Your task to perform on an android device: Open settings Image 0: 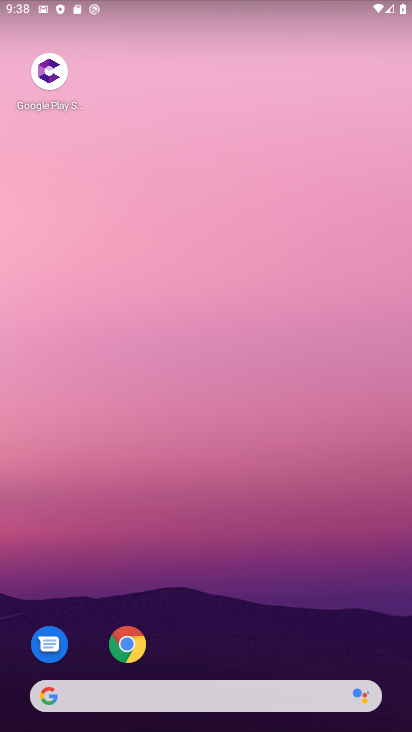
Step 0: drag from (305, 657) to (243, 107)
Your task to perform on an android device: Open settings Image 1: 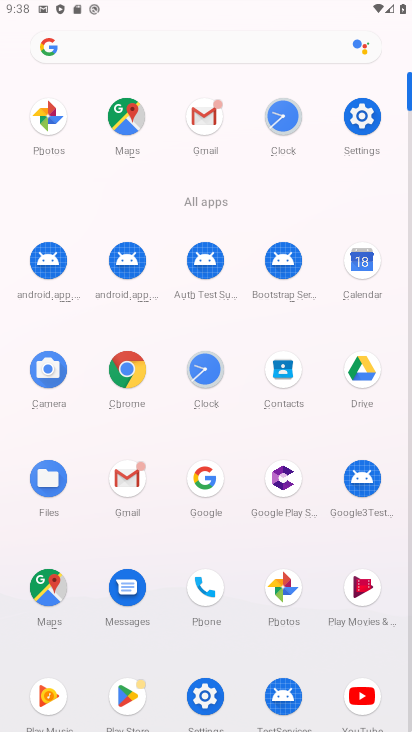
Step 1: click (349, 123)
Your task to perform on an android device: Open settings Image 2: 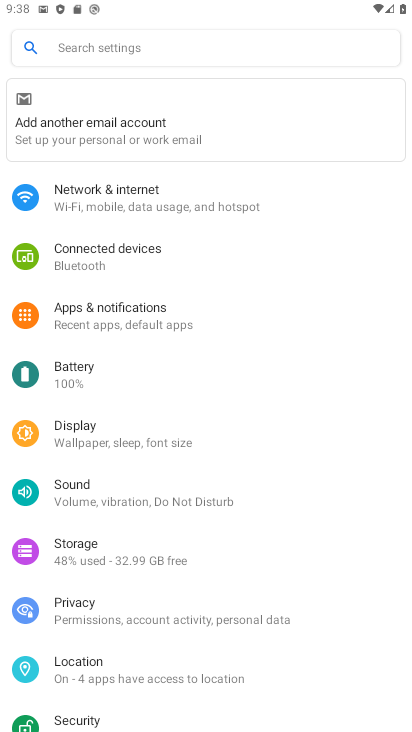
Step 2: task complete